Your task to perform on an android device: toggle javascript in the chrome app Image 0: 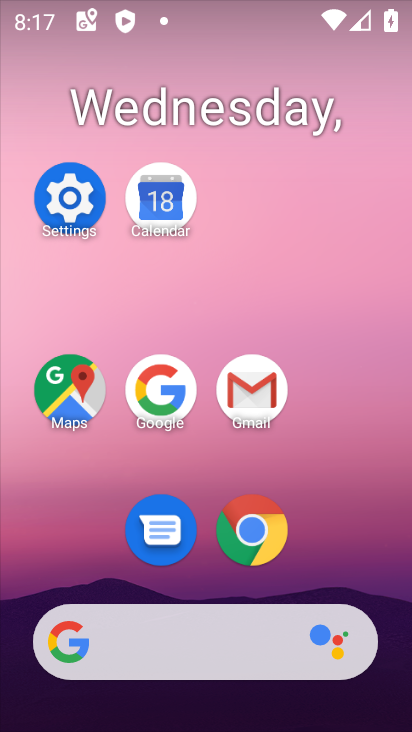
Step 0: click (262, 534)
Your task to perform on an android device: toggle javascript in the chrome app Image 1: 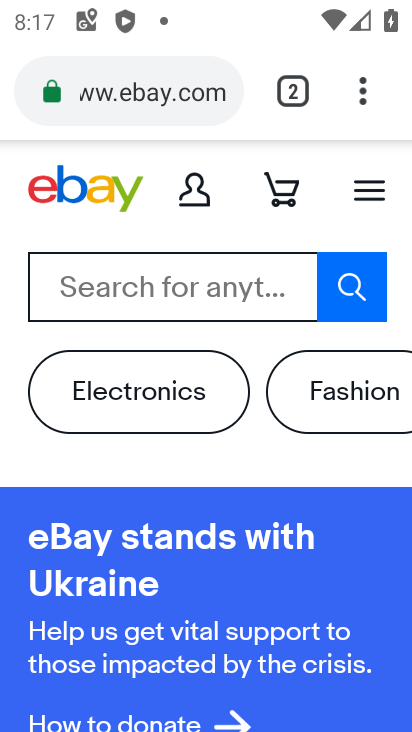
Step 1: click (365, 73)
Your task to perform on an android device: toggle javascript in the chrome app Image 2: 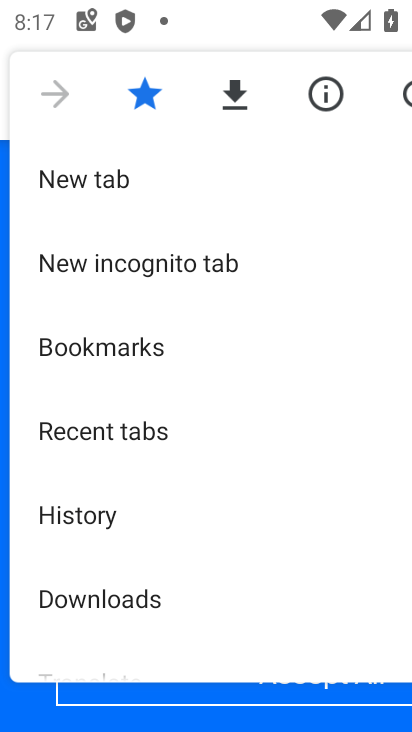
Step 2: drag from (300, 555) to (333, 155)
Your task to perform on an android device: toggle javascript in the chrome app Image 3: 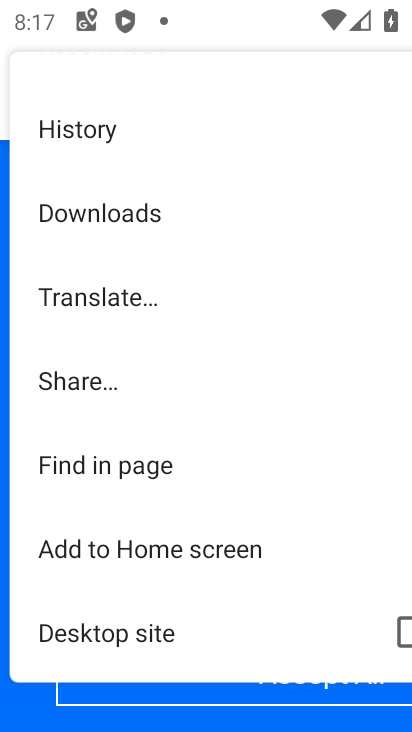
Step 3: drag from (202, 530) to (223, 177)
Your task to perform on an android device: toggle javascript in the chrome app Image 4: 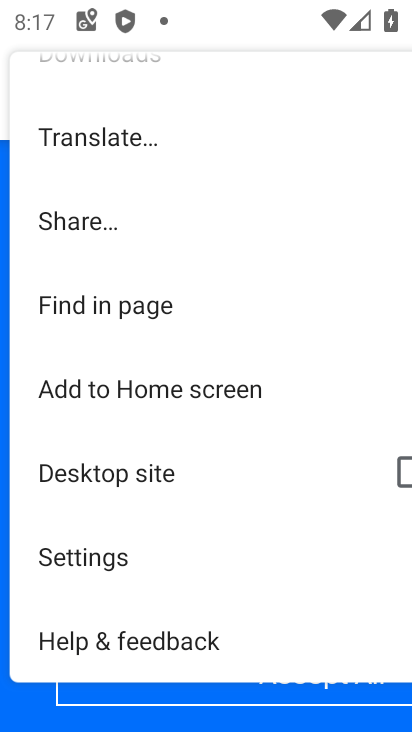
Step 4: click (130, 547)
Your task to perform on an android device: toggle javascript in the chrome app Image 5: 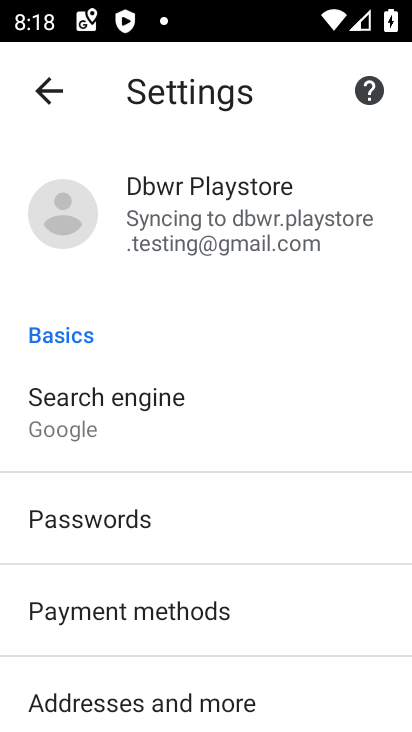
Step 5: drag from (216, 634) to (237, 144)
Your task to perform on an android device: toggle javascript in the chrome app Image 6: 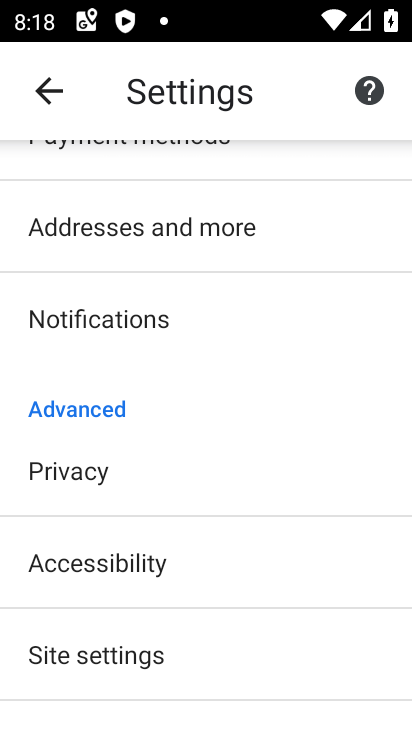
Step 6: drag from (200, 548) to (222, 162)
Your task to perform on an android device: toggle javascript in the chrome app Image 7: 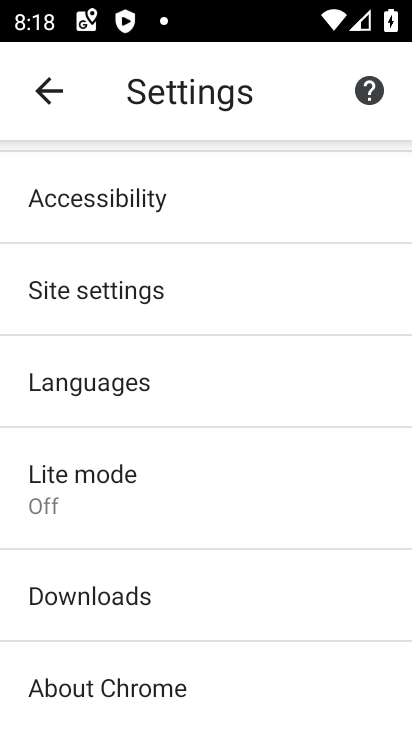
Step 7: click (199, 276)
Your task to perform on an android device: toggle javascript in the chrome app Image 8: 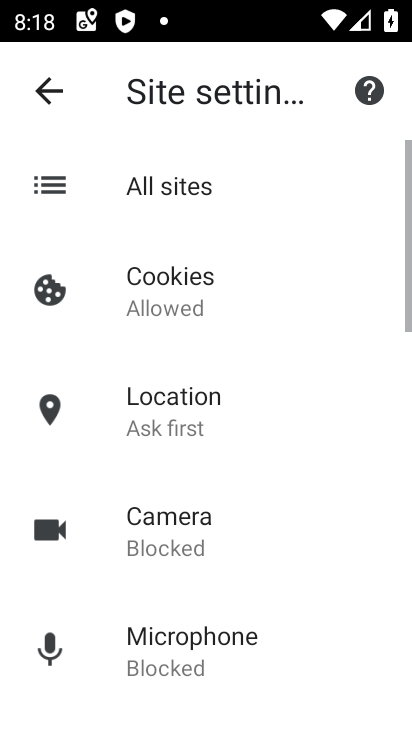
Step 8: drag from (156, 616) to (200, 220)
Your task to perform on an android device: toggle javascript in the chrome app Image 9: 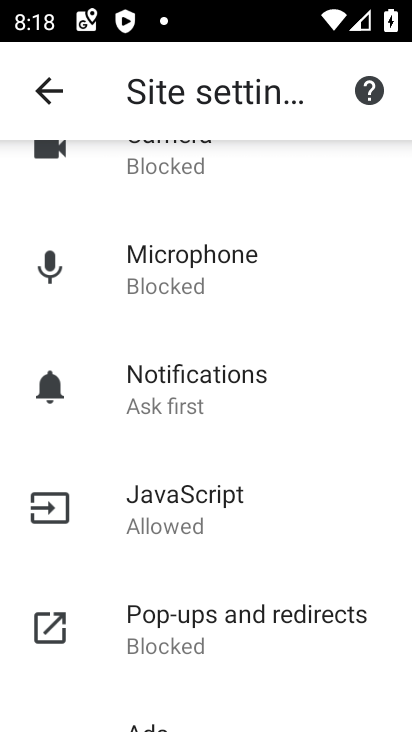
Step 9: click (218, 495)
Your task to perform on an android device: toggle javascript in the chrome app Image 10: 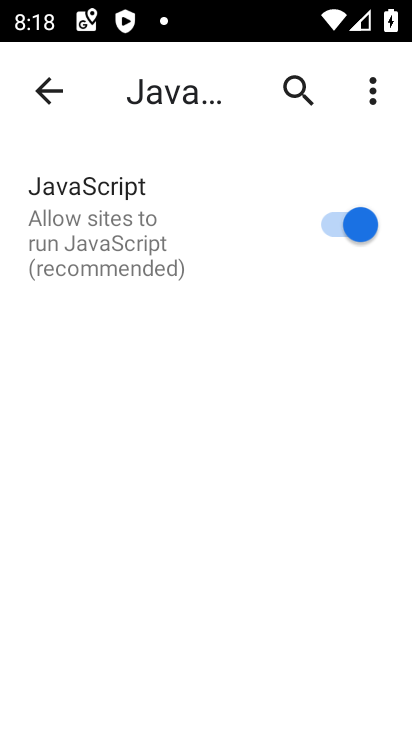
Step 10: click (370, 229)
Your task to perform on an android device: toggle javascript in the chrome app Image 11: 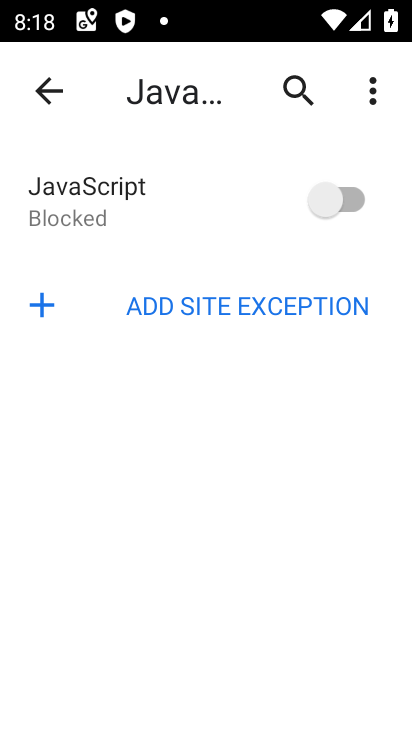
Step 11: task complete